Your task to perform on an android device: turn notification dots on Image 0: 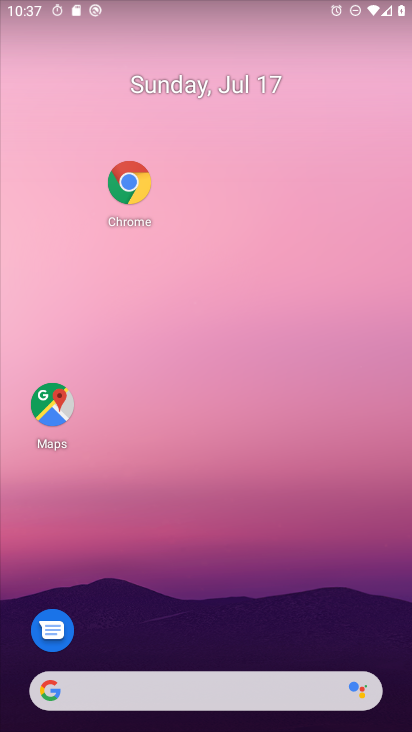
Step 0: drag from (264, 662) to (253, 143)
Your task to perform on an android device: turn notification dots on Image 1: 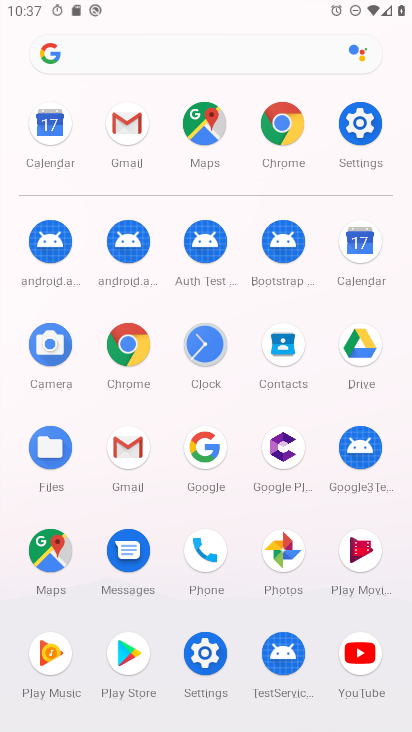
Step 1: click (354, 113)
Your task to perform on an android device: turn notification dots on Image 2: 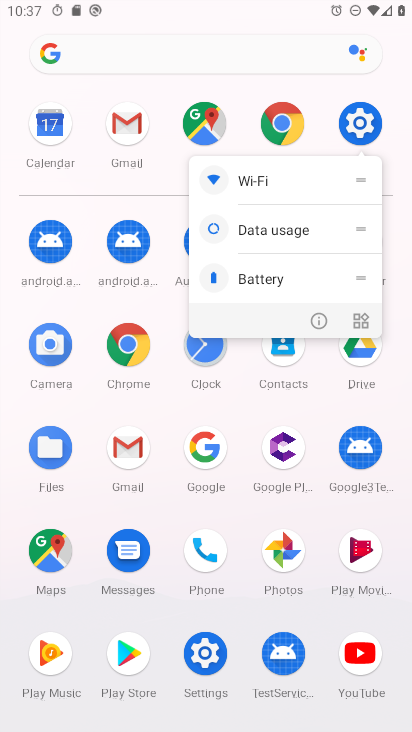
Step 2: click (342, 120)
Your task to perform on an android device: turn notification dots on Image 3: 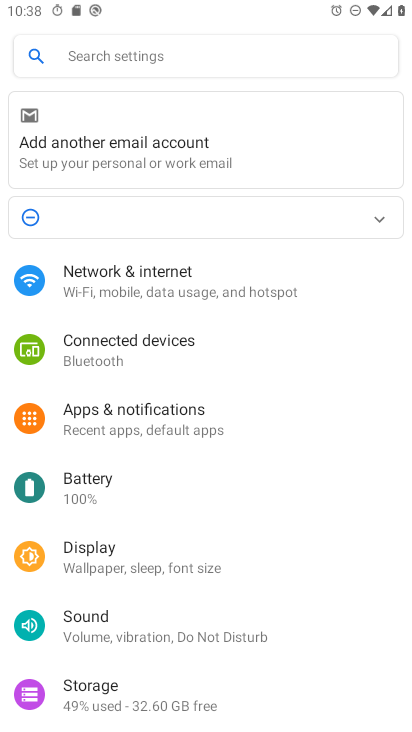
Step 3: click (196, 43)
Your task to perform on an android device: turn notification dots on Image 4: 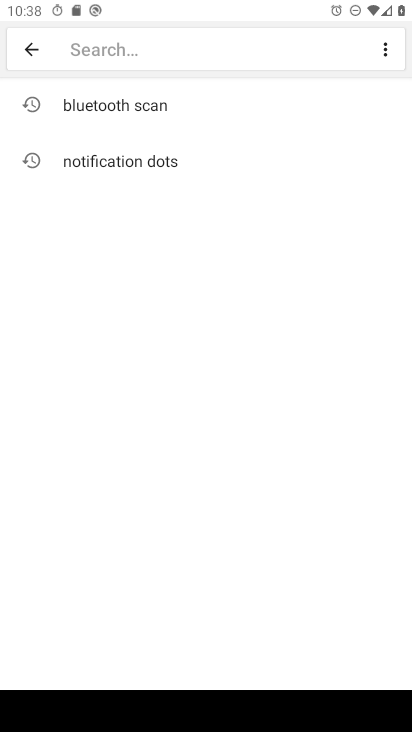
Step 4: type " notification dots "
Your task to perform on an android device: turn notification dots on Image 5: 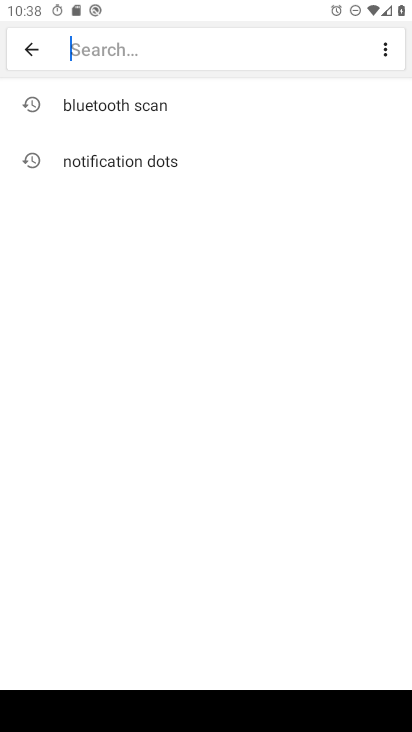
Step 5: click (132, 171)
Your task to perform on an android device: turn notification dots on Image 6: 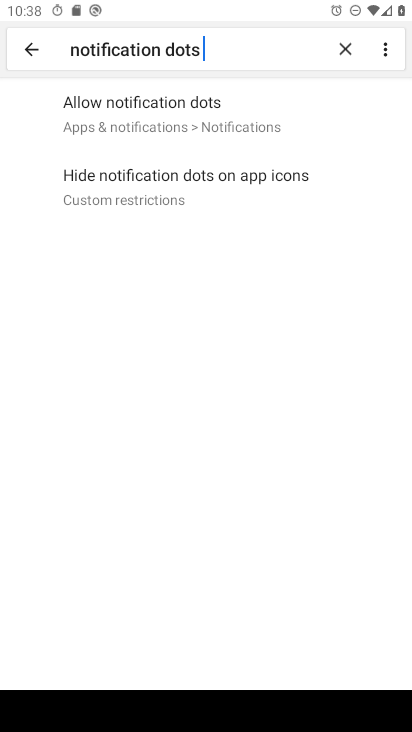
Step 6: click (134, 102)
Your task to perform on an android device: turn notification dots on Image 7: 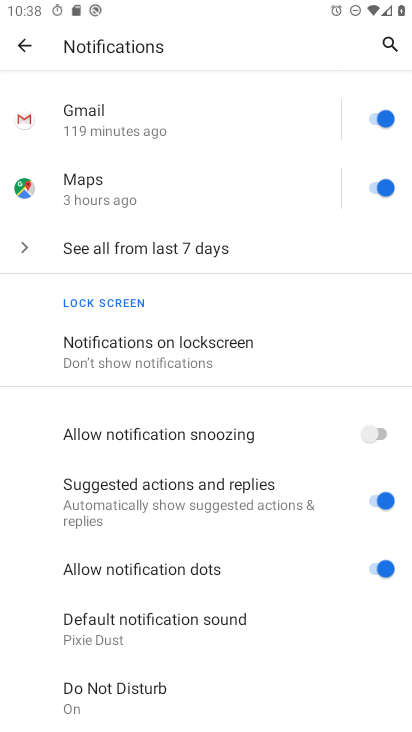
Step 7: task complete